Your task to perform on an android device: Open Android settings Image 0: 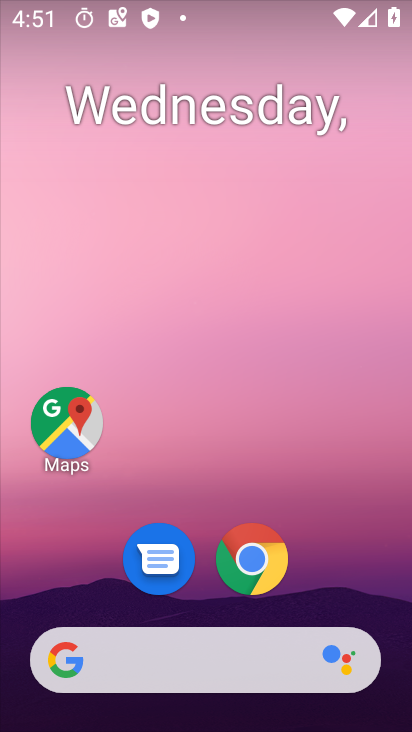
Step 0: drag from (317, 497) to (163, 8)
Your task to perform on an android device: Open Android settings Image 1: 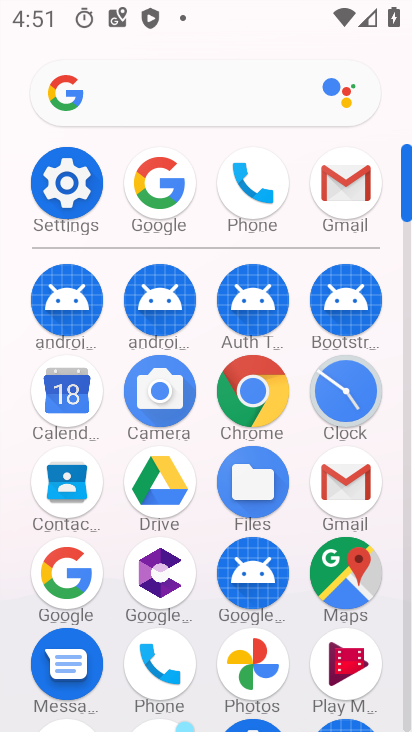
Step 1: click (60, 191)
Your task to perform on an android device: Open Android settings Image 2: 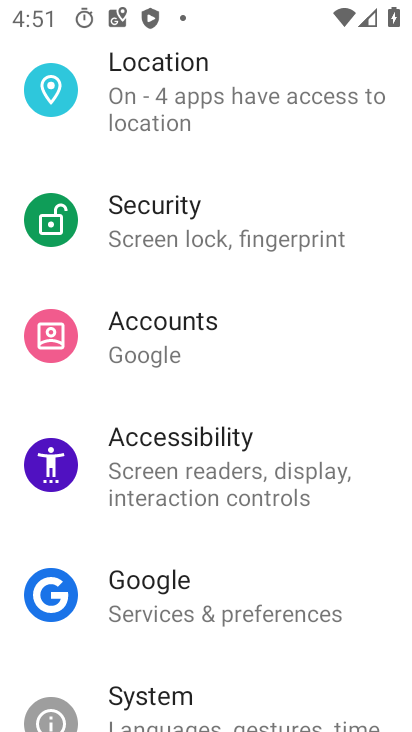
Step 2: drag from (278, 621) to (219, 217)
Your task to perform on an android device: Open Android settings Image 3: 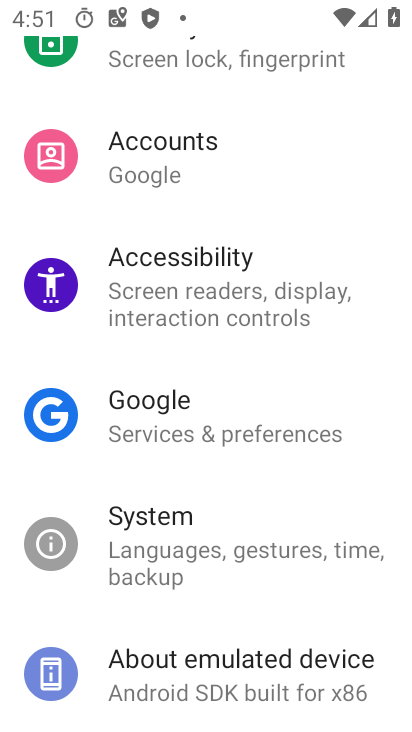
Step 3: click (221, 669)
Your task to perform on an android device: Open Android settings Image 4: 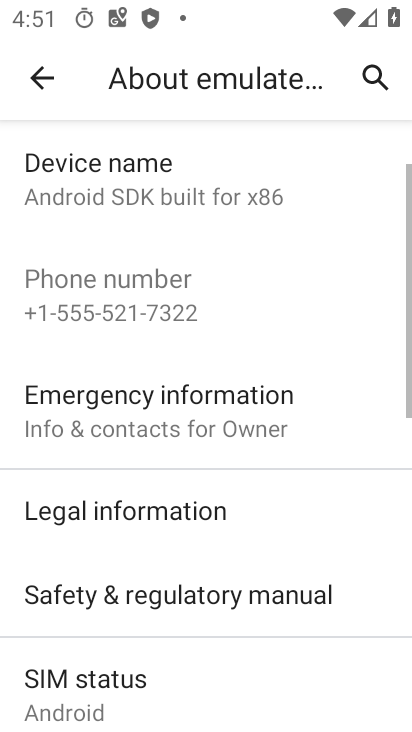
Step 4: drag from (209, 638) to (215, 240)
Your task to perform on an android device: Open Android settings Image 5: 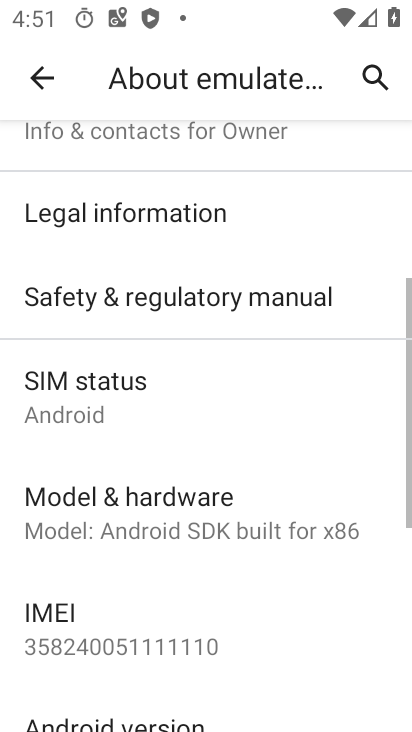
Step 5: drag from (199, 603) to (205, 268)
Your task to perform on an android device: Open Android settings Image 6: 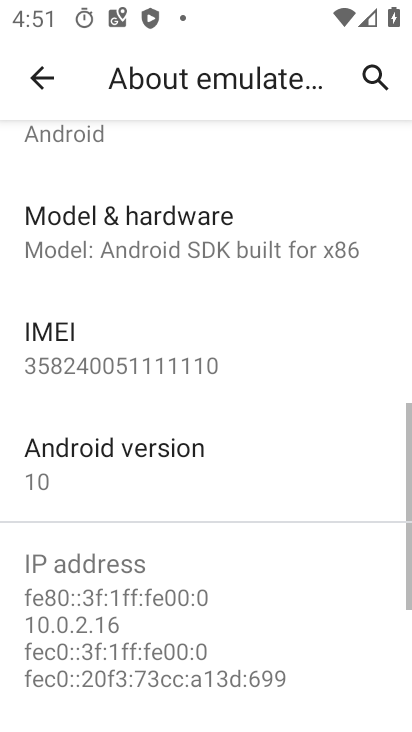
Step 6: click (187, 456)
Your task to perform on an android device: Open Android settings Image 7: 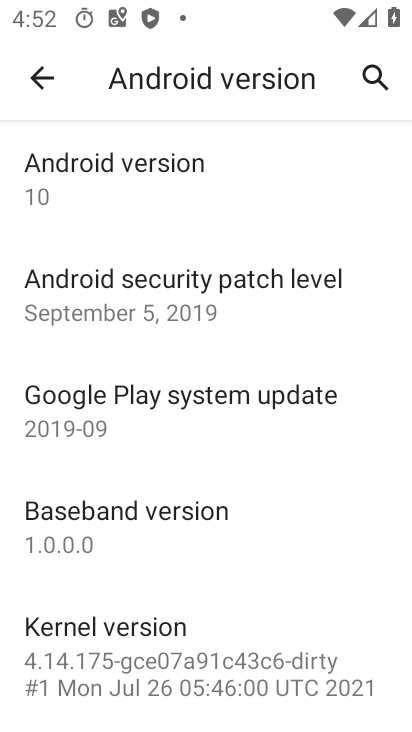
Step 7: task complete